Your task to perform on an android device: Open calendar and show me the third week of next month Image 0: 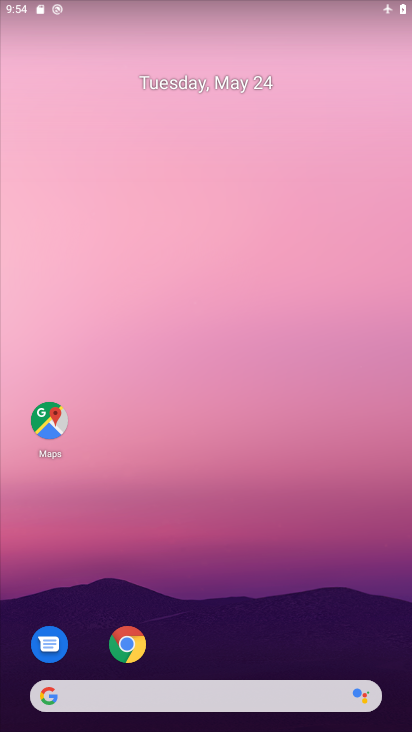
Step 0: drag from (208, 567) to (109, 142)
Your task to perform on an android device: Open calendar and show me the third week of next month Image 1: 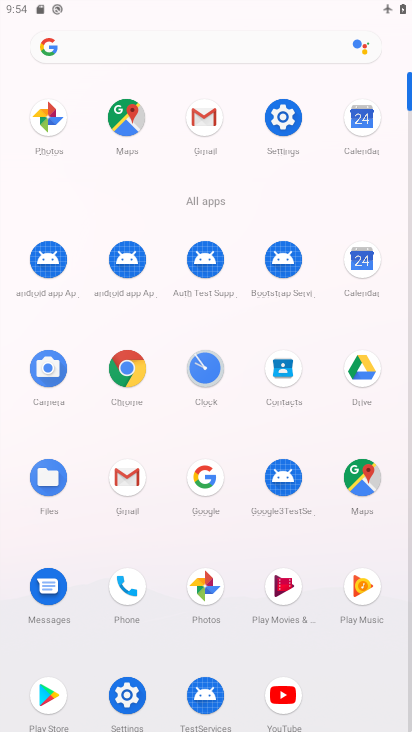
Step 1: click (363, 261)
Your task to perform on an android device: Open calendar and show me the third week of next month Image 2: 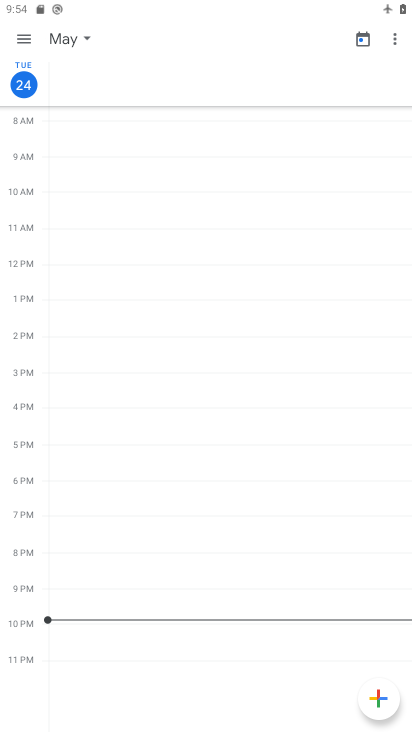
Step 2: click (15, 39)
Your task to perform on an android device: Open calendar and show me the third week of next month Image 3: 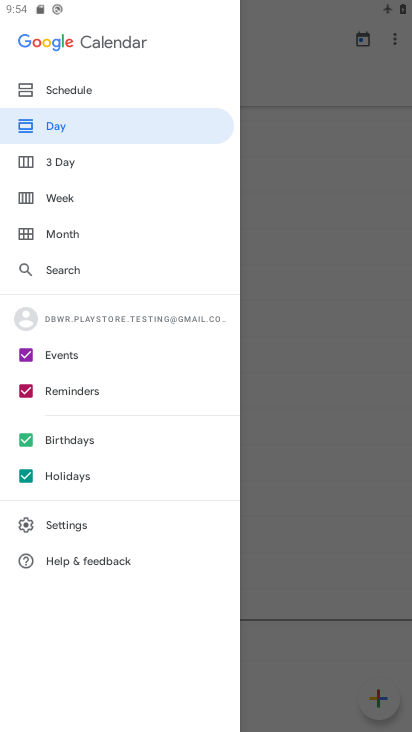
Step 3: click (67, 197)
Your task to perform on an android device: Open calendar and show me the third week of next month Image 4: 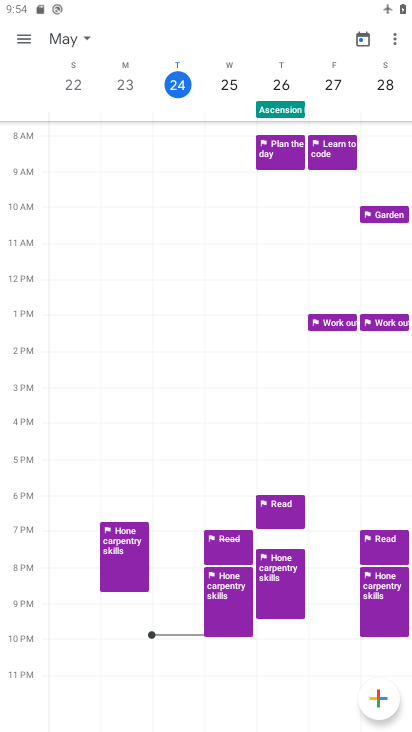
Step 4: click (80, 33)
Your task to perform on an android device: Open calendar and show me the third week of next month Image 5: 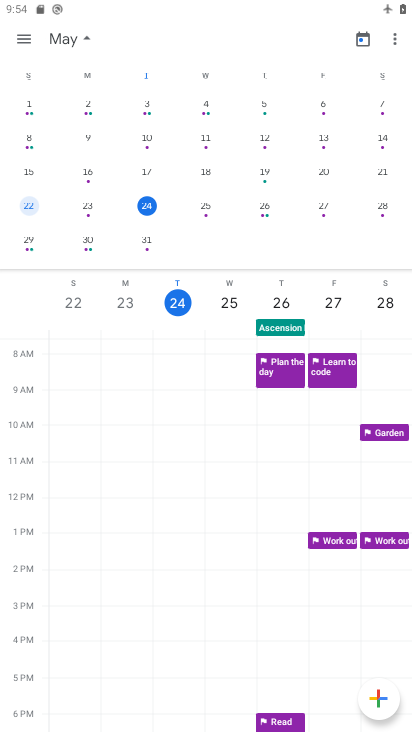
Step 5: drag from (369, 159) to (50, 172)
Your task to perform on an android device: Open calendar and show me the third week of next month Image 6: 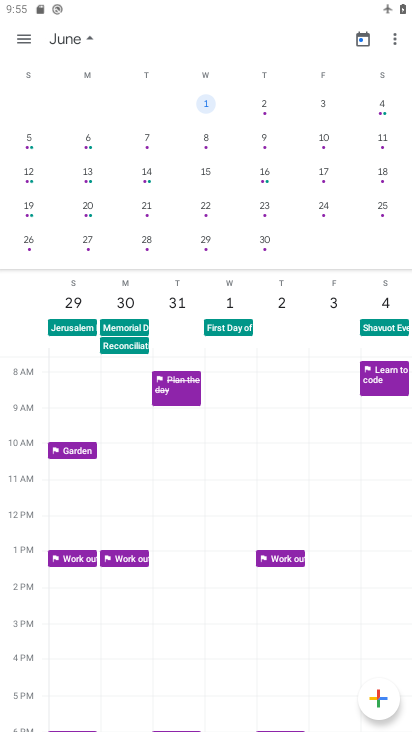
Step 6: click (205, 166)
Your task to perform on an android device: Open calendar and show me the third week of next month Image 7: 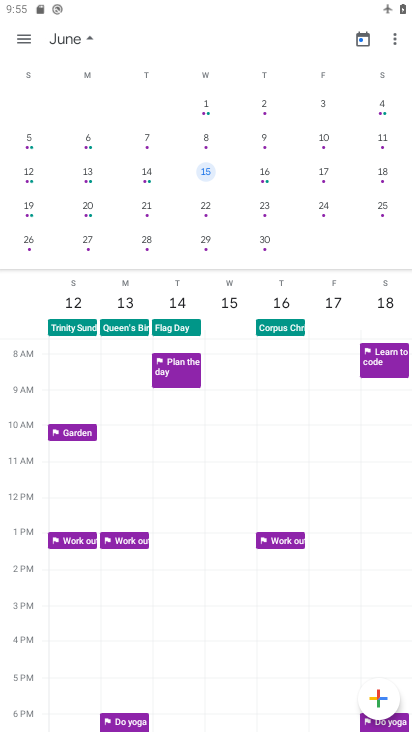
Step 7: task complete